Your task to perform on an android device: Open Google Maps Image 0: 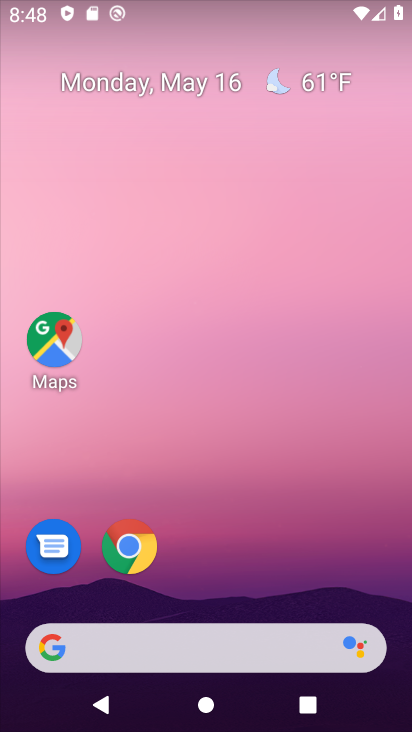
Step 0: click (48, 356)
Your task to perform on an android device: Open Google Maps Image 1: 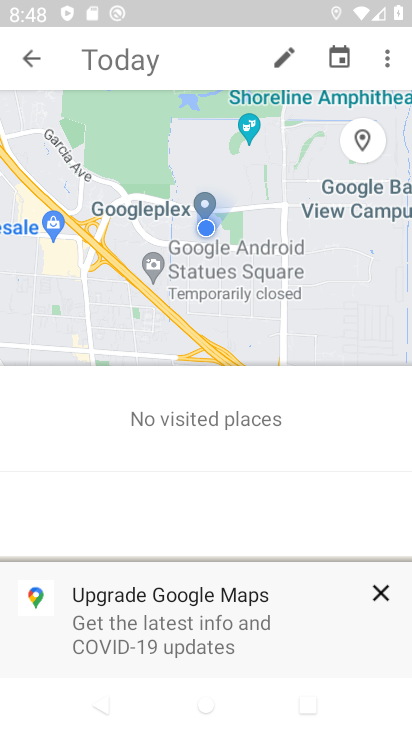
Step 1: click (36, 80)
Your task to perform on an android device: Open Google Maps Image 2: 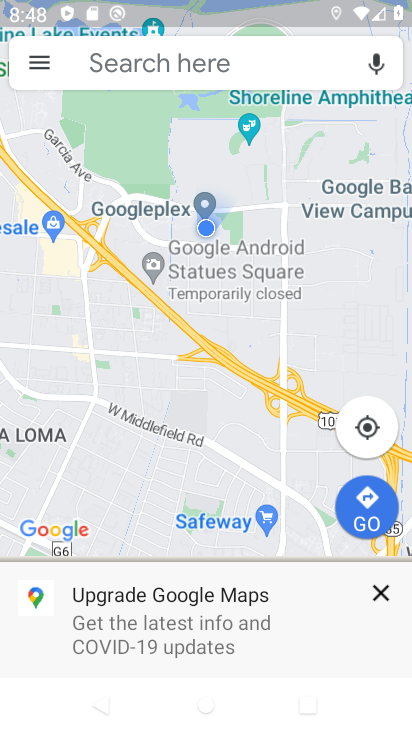
Step 2: task complete